Your task to perform on an android device: Go to internet settings Image 0: 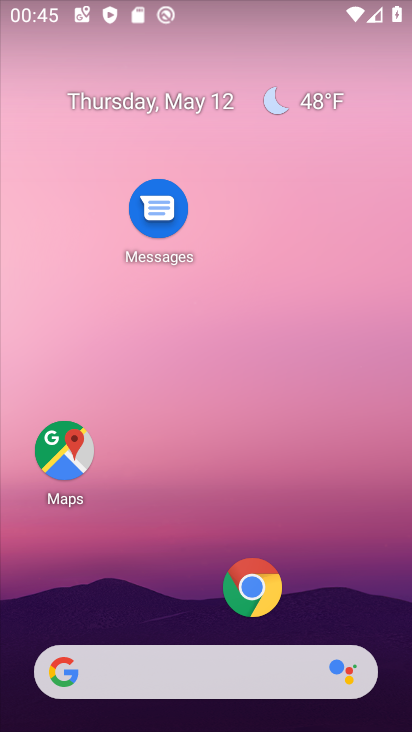
Step 0: drag from (176, 632) to (205, 77)
Your task to perform on an android device: Go to internet settings Image 1: 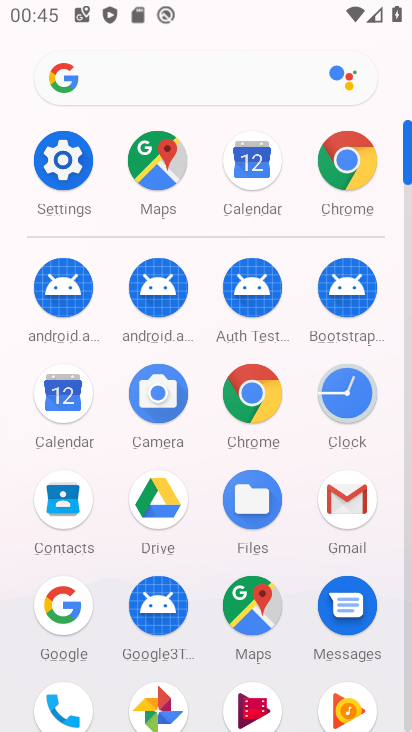
Step 1: click (64, 181)
Your task to perform on an android device: Go to internet settings Image 2: 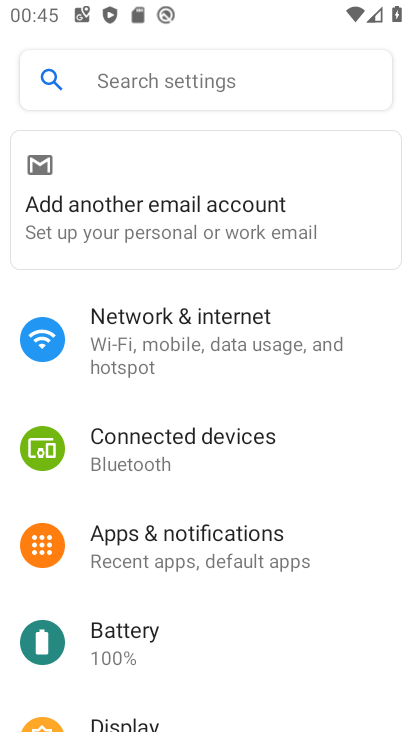
Step 2: click (140, 332)
Your task to perform on an android device: Go to internet settings Image 3: 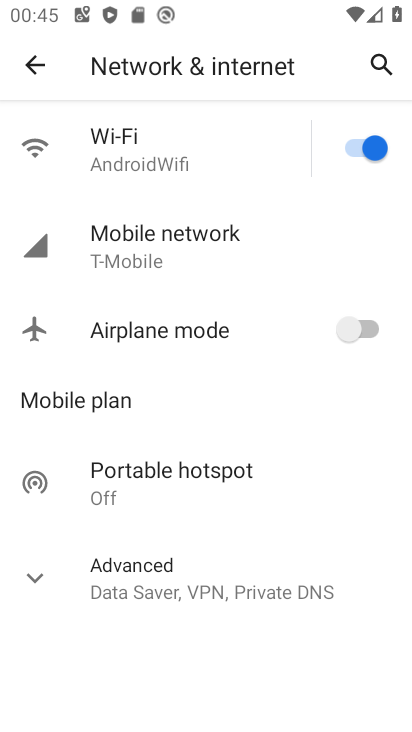
Step 3: click (164, 256)
Your task to perform on an android device: Go to internet settings Image 4: 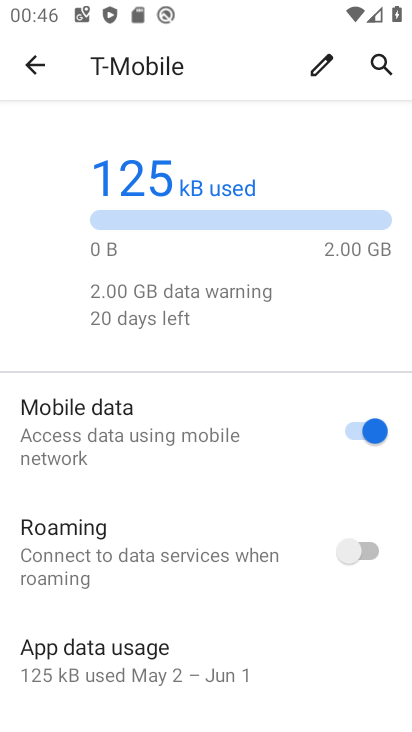
Step 4: task complete